Your task to perform on an android device: Open Wikipedia Image 0: 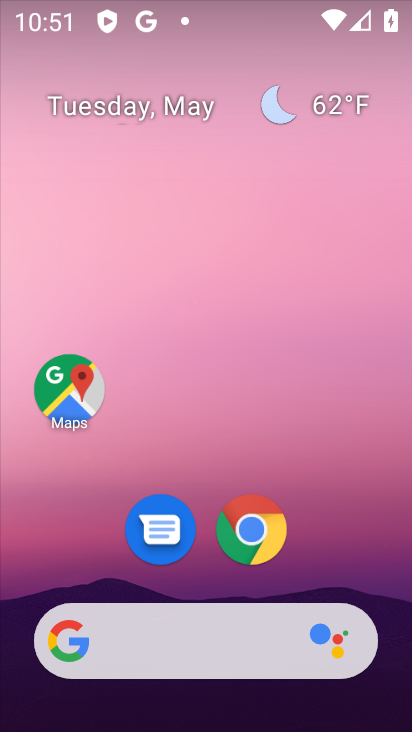
Step 0: click (258, 544)
Your task to perform on an android device: Open Wikipedia Image 1: 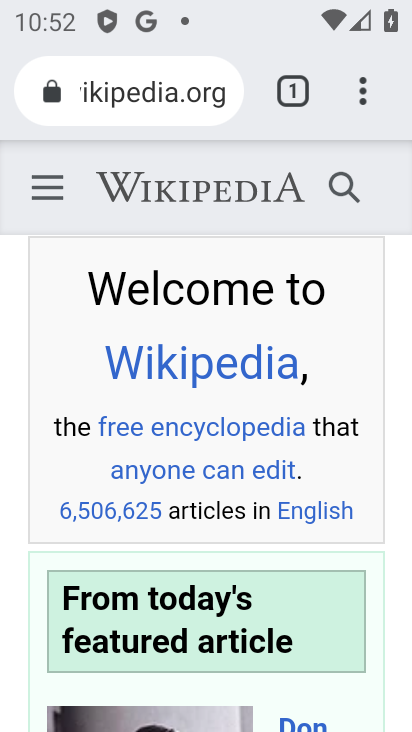
Step 1: task complete